Your task to perform on an android device: turn on translation in the chrome app Image 0: 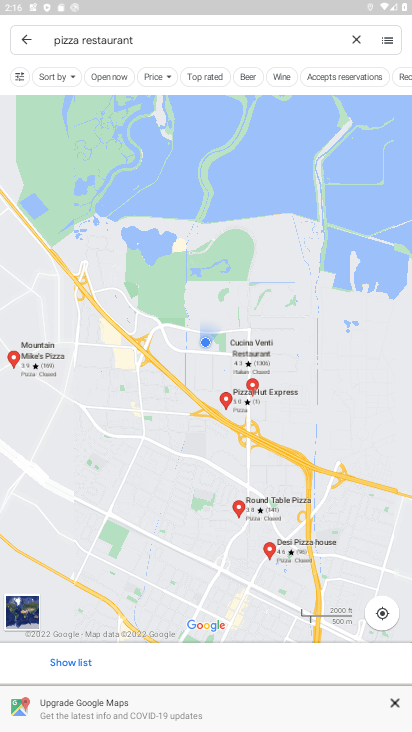
Step 0: press home button
Your task to perform on an android device: turn on translation in the chrome app Image 1: 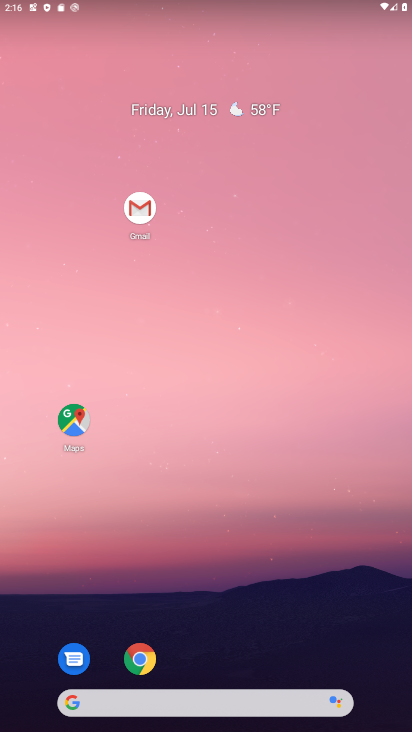
Step 1: click (146, 655)
Your task to perform on an android device: turn on translation in the chrome app Image 2: 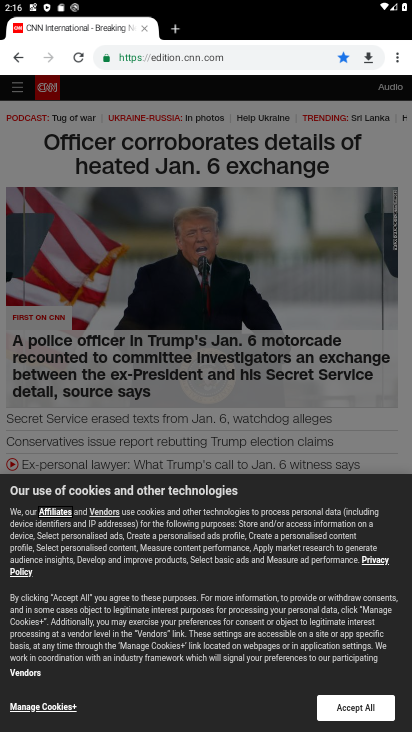
Step 2: click (400, 56)
Your task to perform on an android device: turn on translation in the chrome app Image 3: 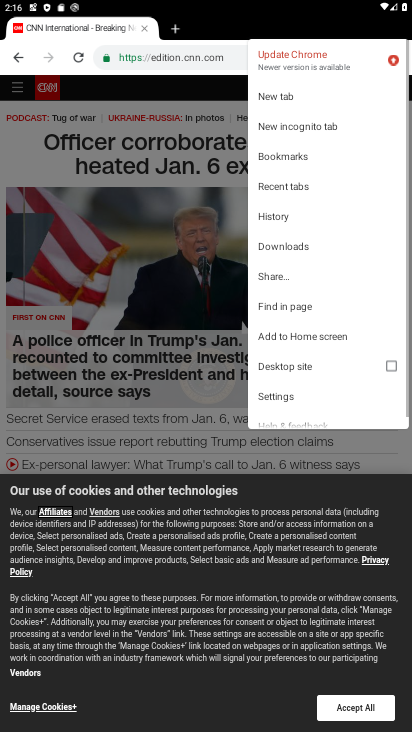
Step 3: click (274, 395)
Your task to perform on an android device: turn on translation in the chrome app Image 4: 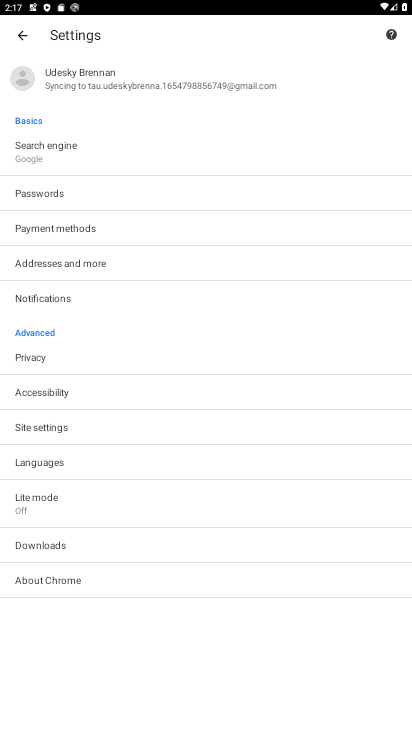
Step 4: click (85, 465)
Your task to perform on an android device: turn on translation in the chrome app Image 5: 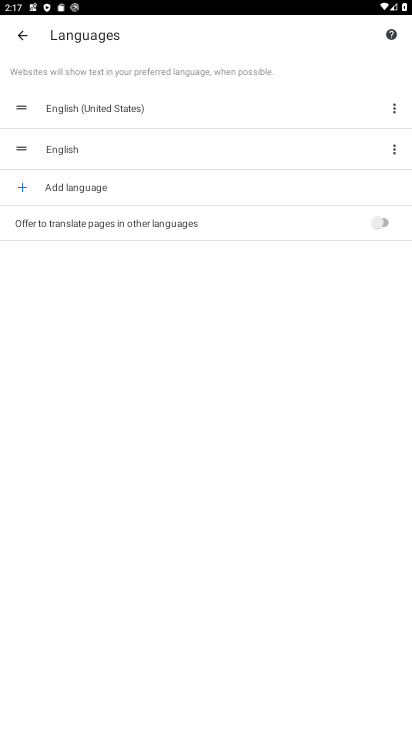
Step 5: click (378, 213)
Your task to perform on an android device: turn on translation in the chrome app Image 6: 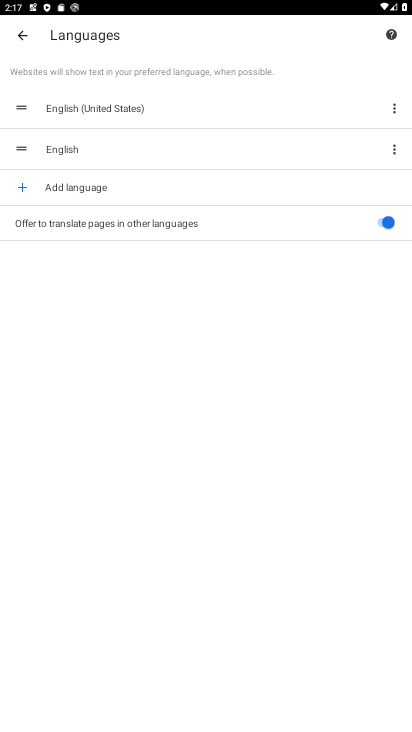
Step 6: task complete